Your task to perform on an android device: Open CNN.com Image 0: 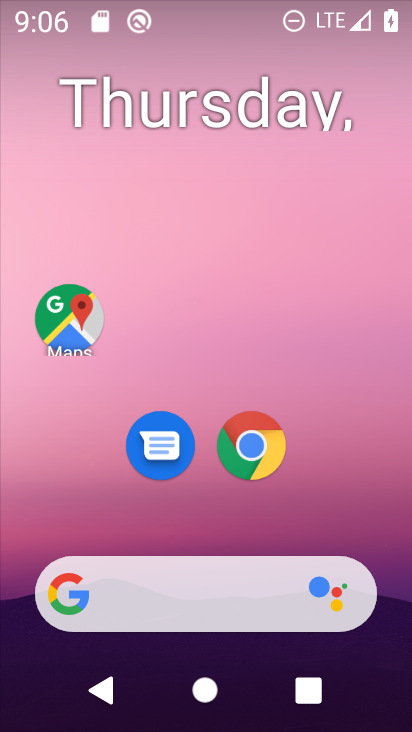
Step 0: drag from (393, 614) to (314, 29)
Your task to perform on an android device: Open CNN.com Image 1: 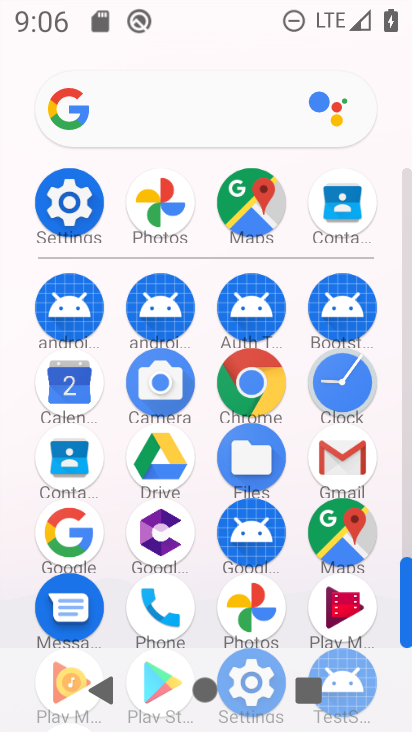
Step 1: click (71, 532)
Your task to perform on an android device: Open CNN.com Image 2: 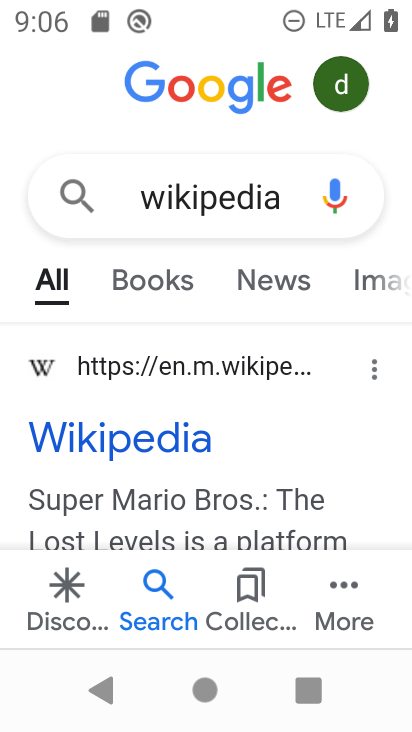
Step 2: press back button
Your task to perform on an android device: Open CNN.com Image 3: 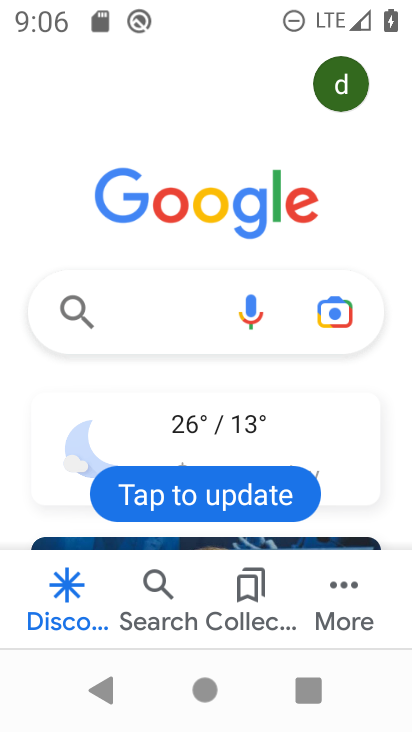
Step 3: click (128, 292)
Your task to perform on an android device: Open CNN.com Image 4: 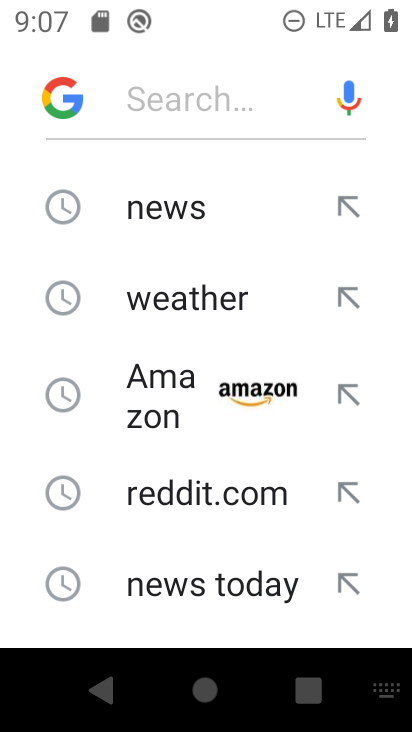
Step 4: drag from (146, 529) to (168, 82)
Your task to perform on an android device: Open CNN.com Image 5: 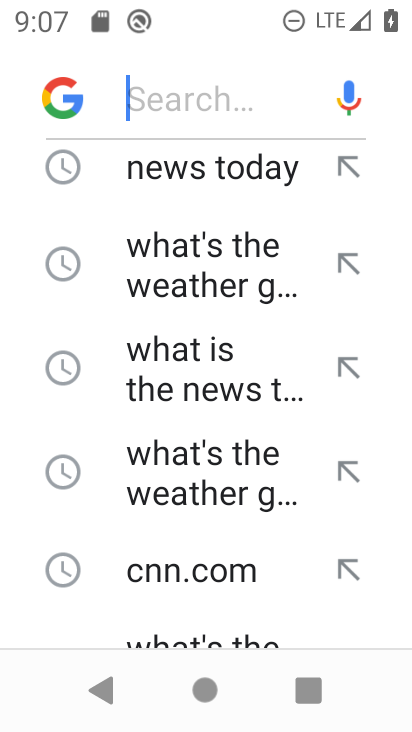
Step 5: click (170, 571)
Your task to perform on an android device: Open CNN.com Image 6: 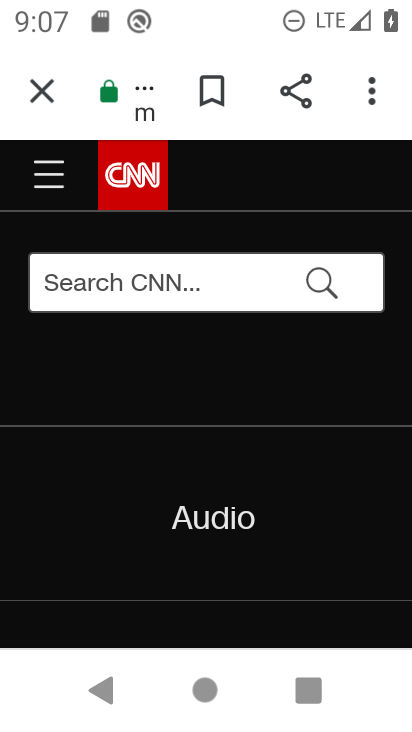
Step 6: task complete